Your task to perform on an android device: Open Chrome and go to settings Image 0: 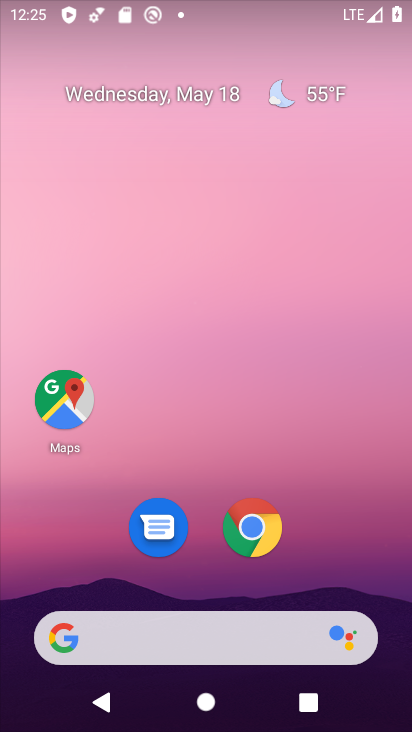
Step 0: click (249, 536)
Your task to perform on an android device: Open Chrome and go to settings Image 1: 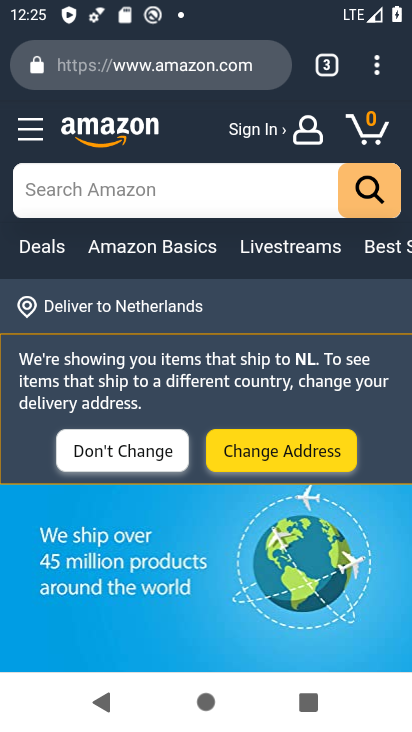
Step 1: click (378, 75)
Your task to perform on an android device: Open Chrome and go to settings Image 2: 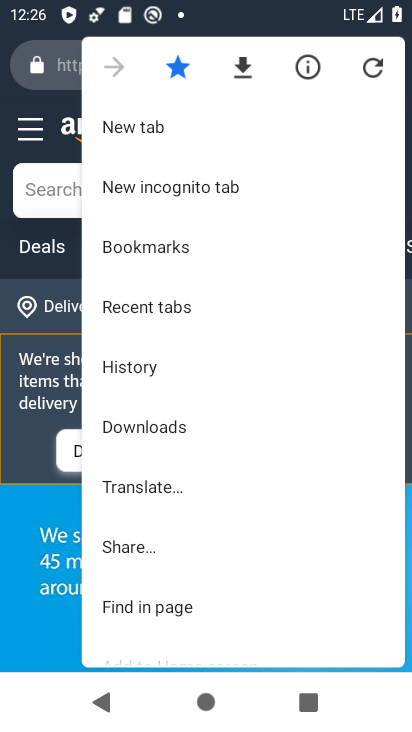
Step 2: drag from (243, 582) to (233, 195)
Your task to perform on an android device: Open Chrome and go to settings Image 3: 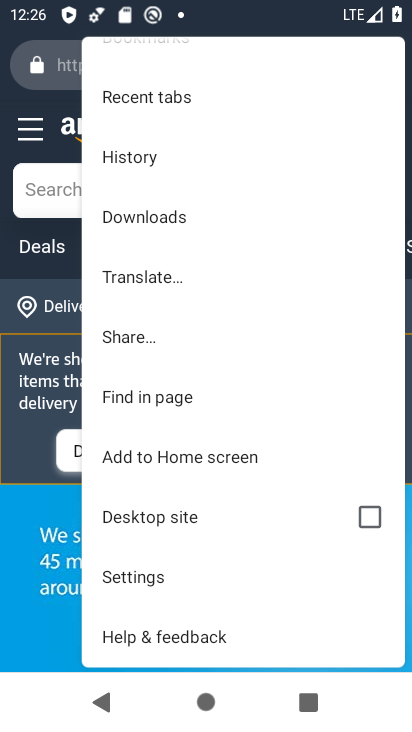
Step 3: click (208, 571)
Your task to perform on an android device: Open Chrome and go to settings Image 4: 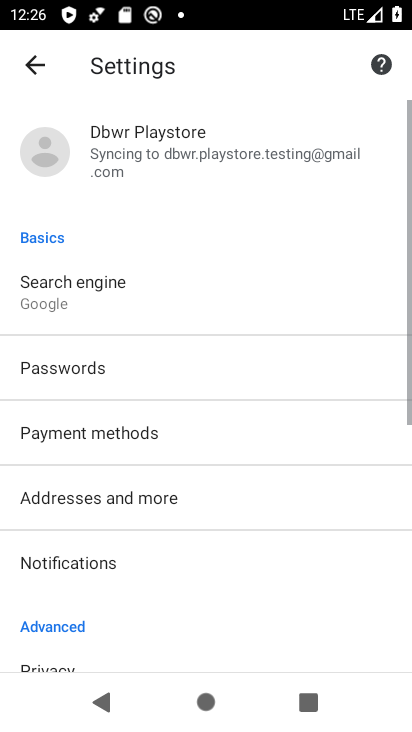
Step 4: task complete